Your task to perform on an android device: turn notification dots off Image 0: 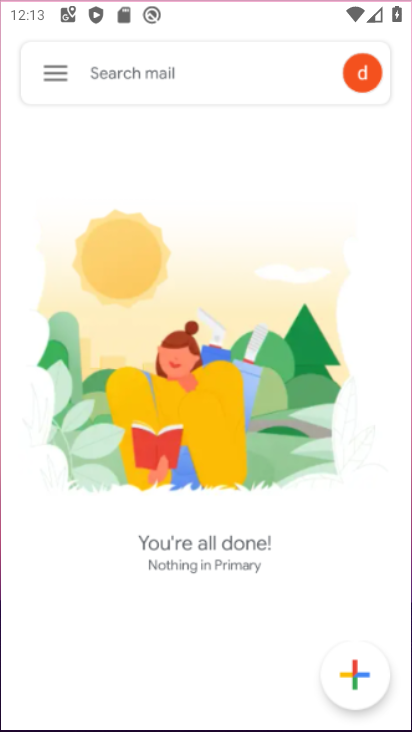
Step 0: press home button
Your task to perform on an android device: turn notification dots off Image 1: 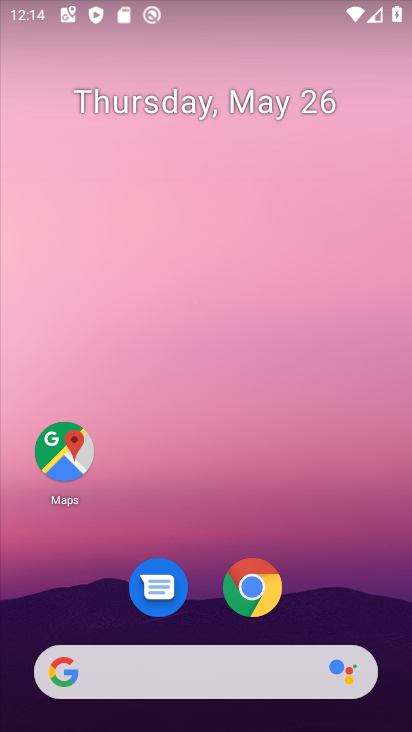
Step 1: drag from (208, 624) to (244, 15)
Your task to perform on an android device: turn notification dots off Image 2: 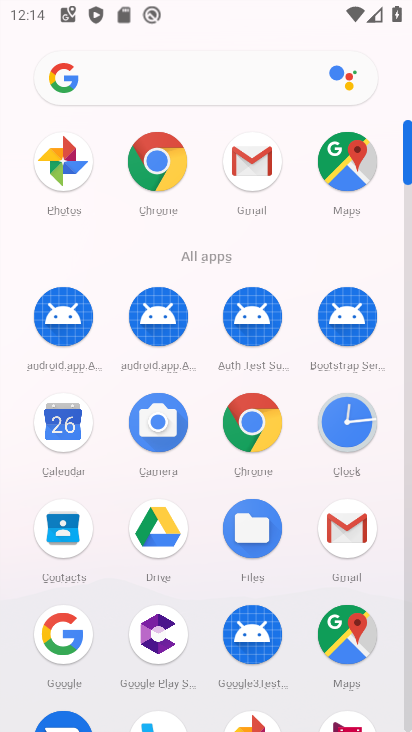
Step 2: drag from (200, 611) to (215, 126)
Your task to perform on an android device: turn notification dots off Image 3: 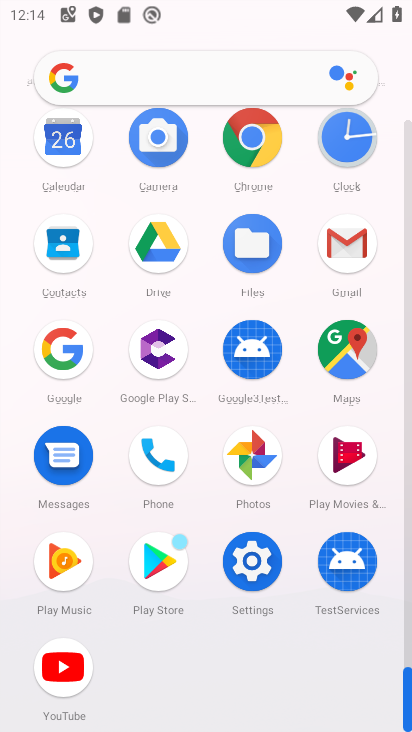
Step 3: click (250, 554)
Your task to perform on an android device: turn notification dots off Image 4: 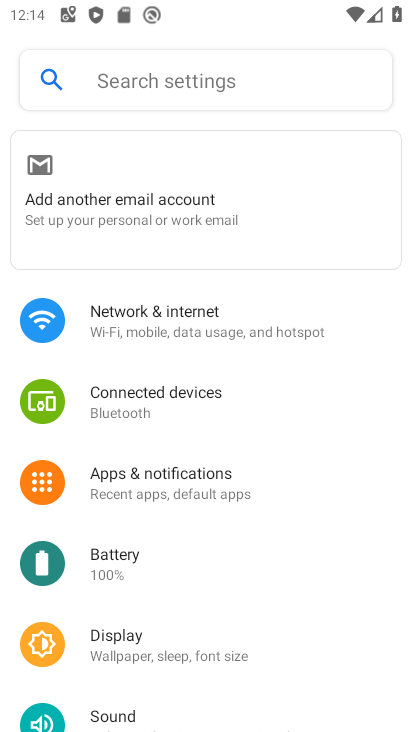
Step 4: click (248, 473)
Your task to perform on an android device: turn notification dots off Image 5: 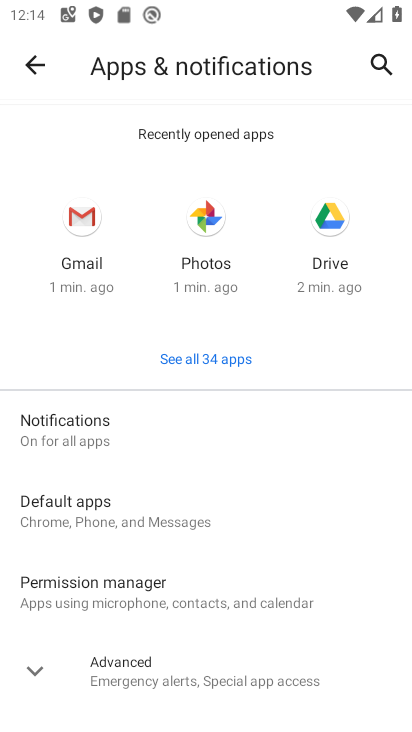
Step 5: click (115, 426)
Your task to perform on an android device: turn notification dots off Image 6: 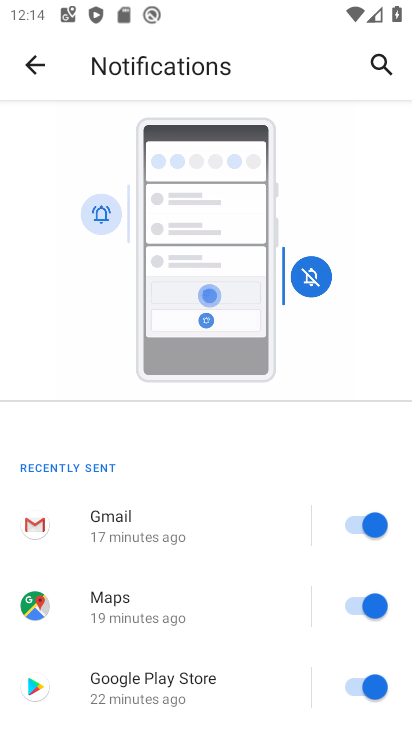
Step 6: drag from (246, 682) to (256, 444)
Your task to perform on an android device: turn notification dots off Image 7: 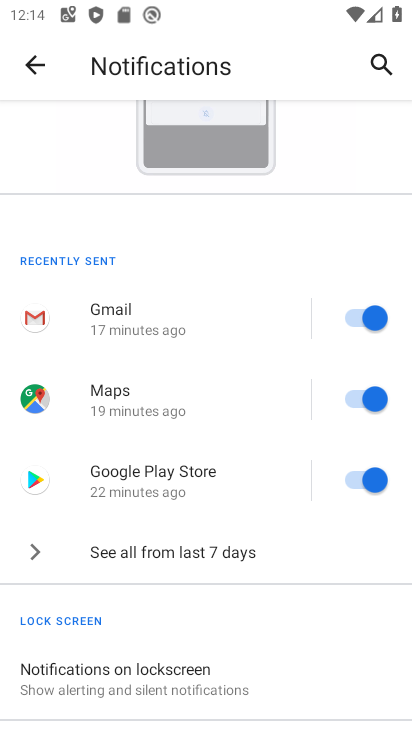
Step 7: drag from (240, 692) to (282, 136)
Your task to perform on an android device: turn notification dots off Image 8: 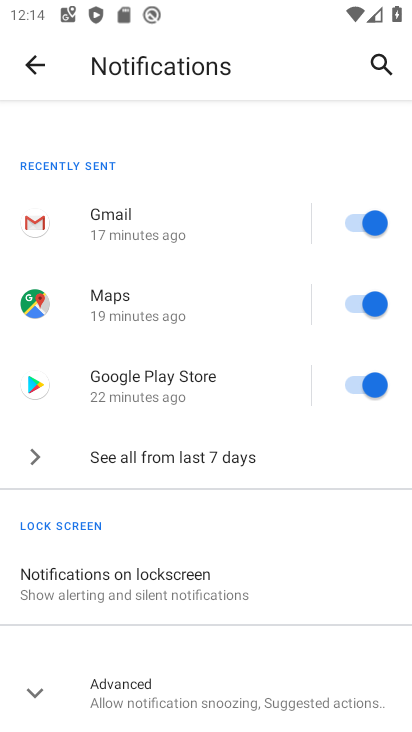
Step 8: click (36, 688)
Your task to perform on an android device: turn notification dots off Image 9: 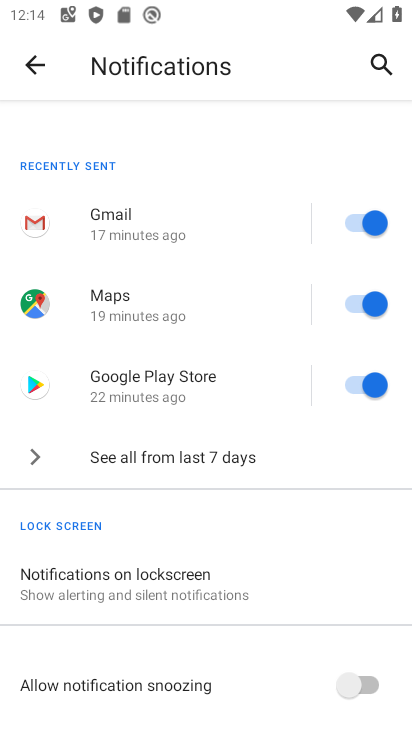
Step 9: drag from (213, 668) to (228, 150)
Your task to perform on an android device: turn notification dots off Image 10: 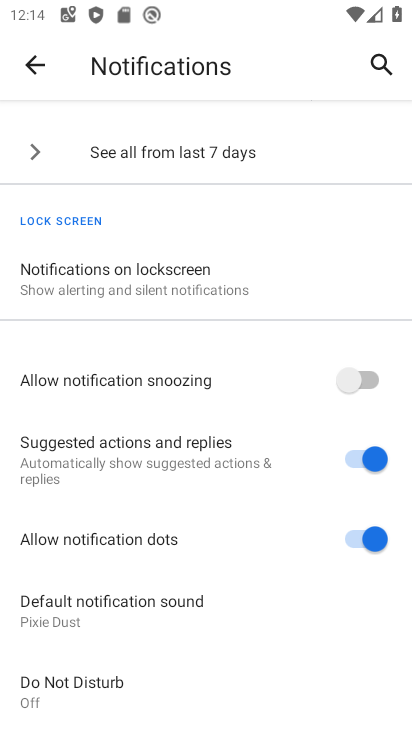
Step 10: click (348, 532)
Your task to perform on an android device: turn notification dots off Image 11: 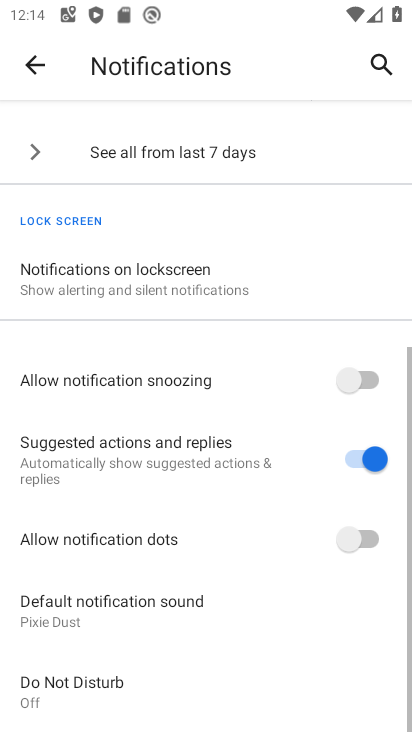
Step 11: task complete